Your task to perform on an android device: See recent photos Image 0: 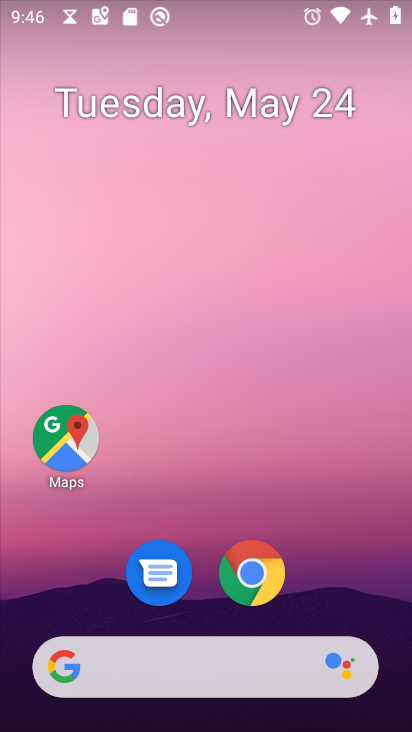
Step 0: drag from (356, 583) to (306, 52)
Your task to perform on an android device: See recent photos Image 1: 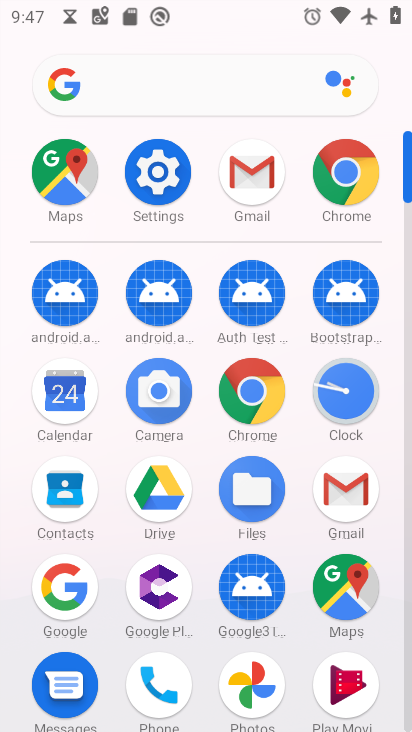
Step 1: click (350, 164)
Your task to perform on an android device: See recent photos Image 2: 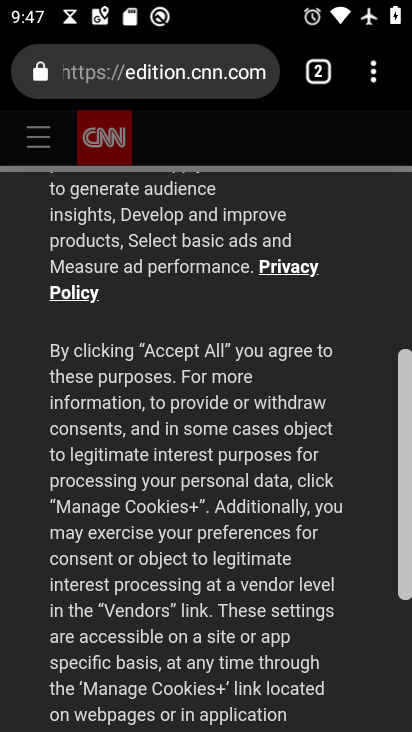
Step 2: press home button
Your task to perform on an android device: See recent photos Image 3: 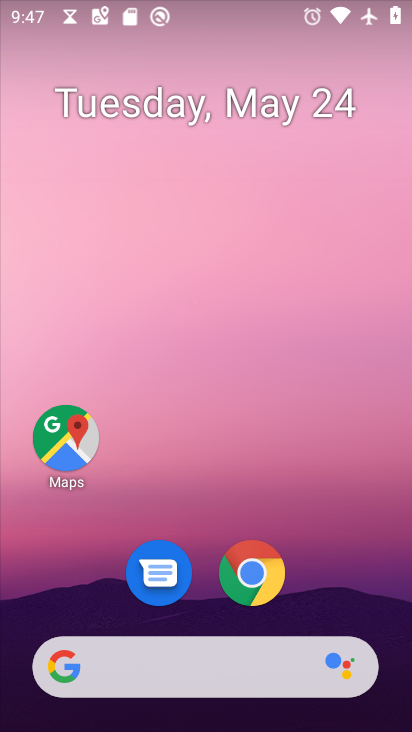
Step 3: drag from (380, 575) to (346, 51)
Your task to perform on an android device: See recent photos Image 4: 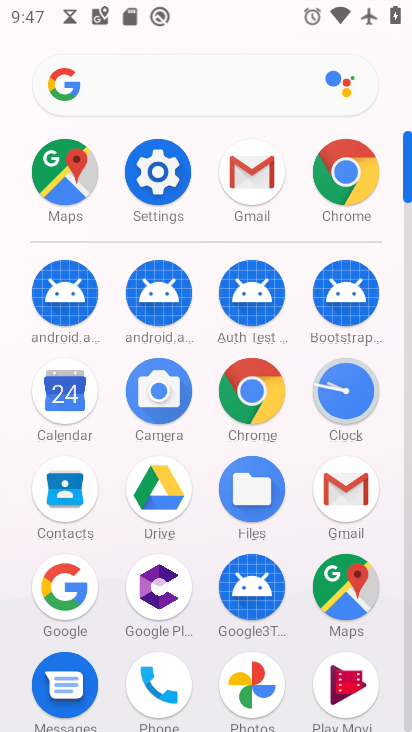
Step 4: drag from (382, 609) to (293, 188)
Your task to perform on an android device: See recent photos Image 5: 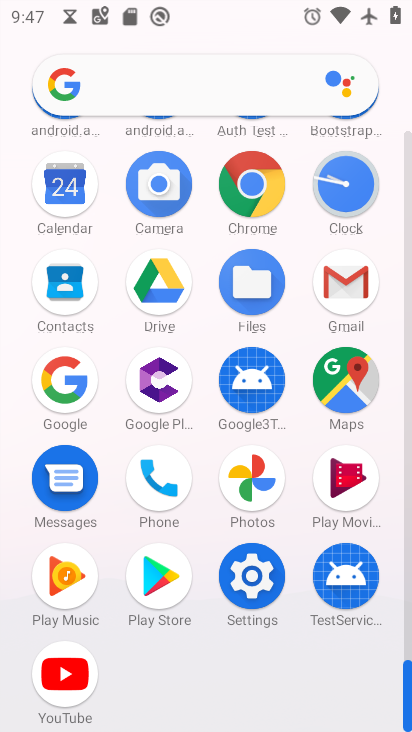
Step 5: click (241, 488)
Your task to perform on an android device: See recent photos Image 6: 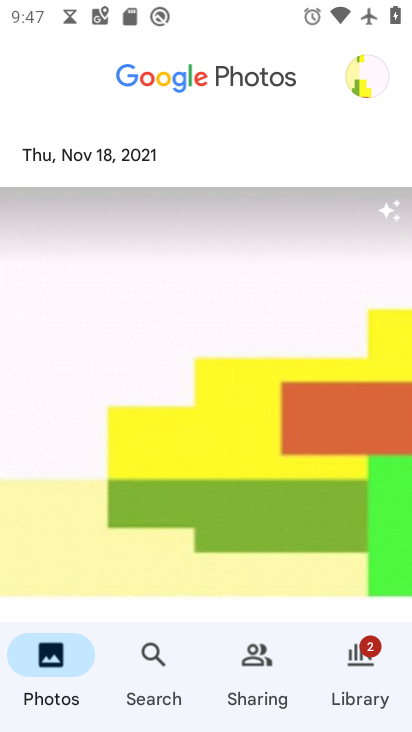
Step 6: press back button
Your task to perform on an android device: See recent photos Image 7: 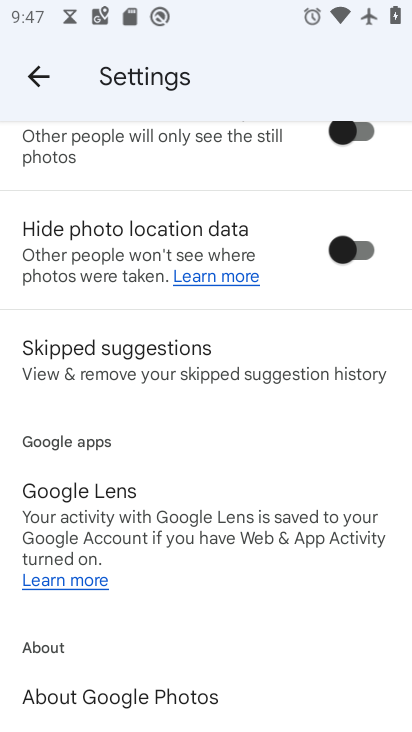
Step 7: drag from (132, 219) to (236, 632)
Your task to perform on an android device: See recent photos Image 8: 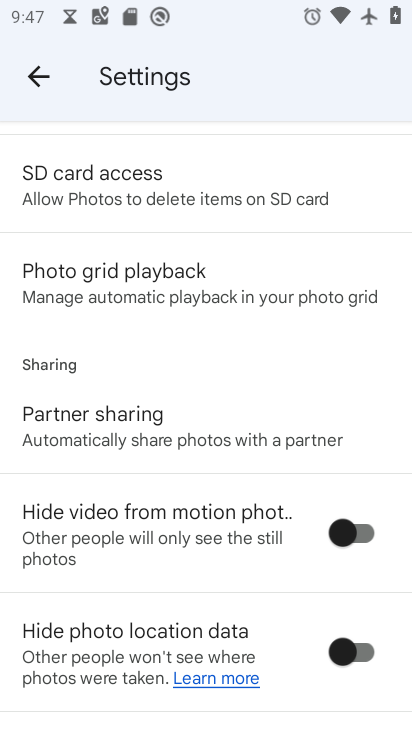
Step 8: click (34, 62)
Your task to perform on an android device: See recent photos Image 9: 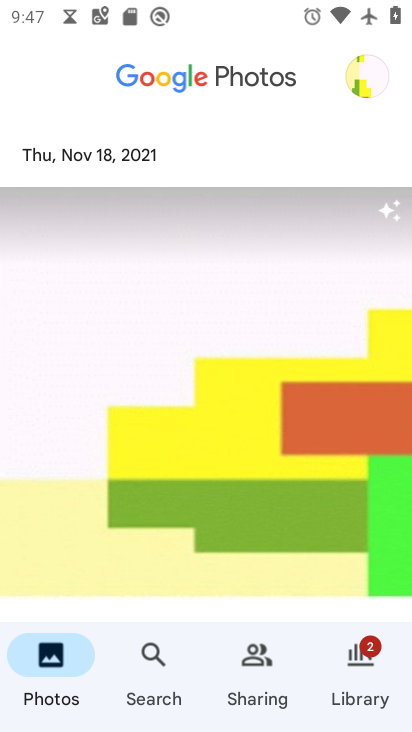
Step 9: task complete